Your task to perform on an android device: delete a single message in the gmail app Image 0: 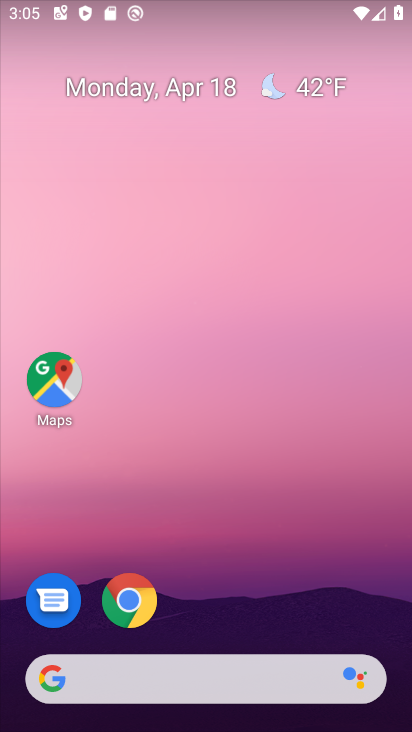
Step 0: drag from (149, 672) to (335, 47)
Your task to perform on an android device: delete a single message in the gmail app Image 1: 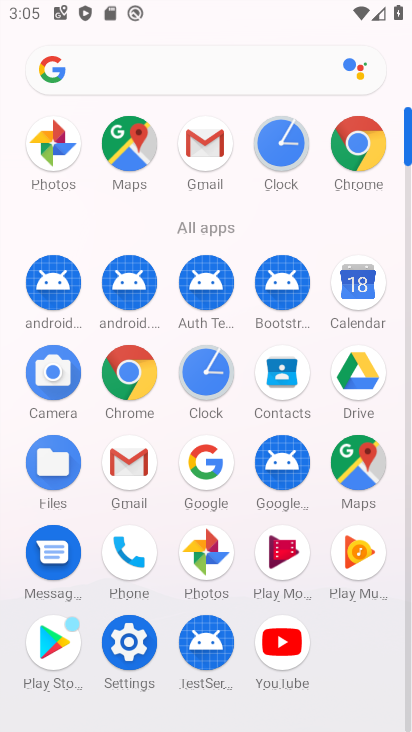
Step 1: click (215, 145)
Your task to perform on an android device: delete a single message in the gmail app Image 2: 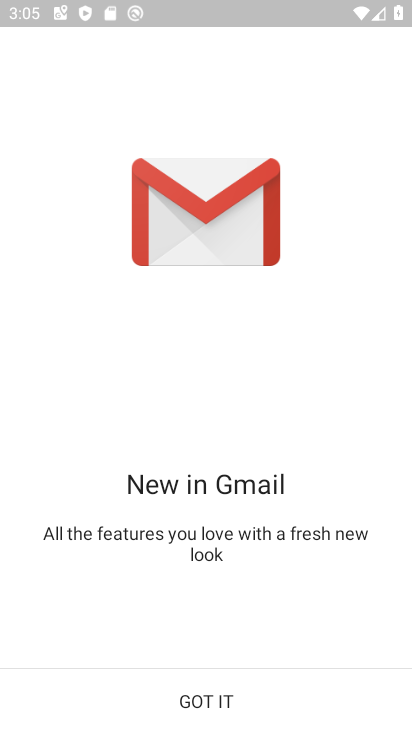
Step 2: click (201, 707)
Your task to perform on an android device: delete a single message in the gmail app Image 3: 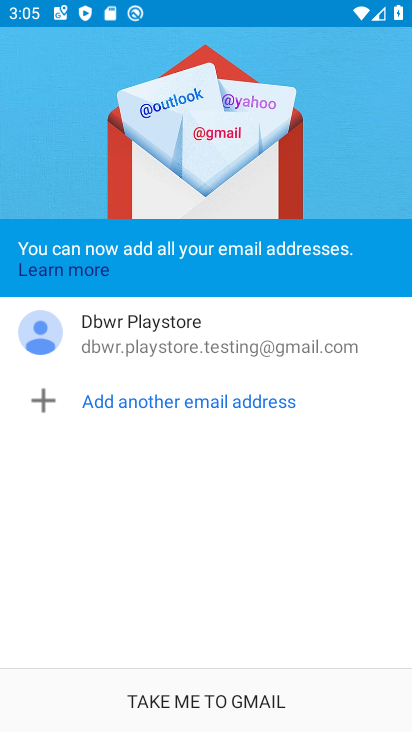
Step 3: click (209, 697)
Your task to perform on an android device: delete a single message in the gmail app Image 4: 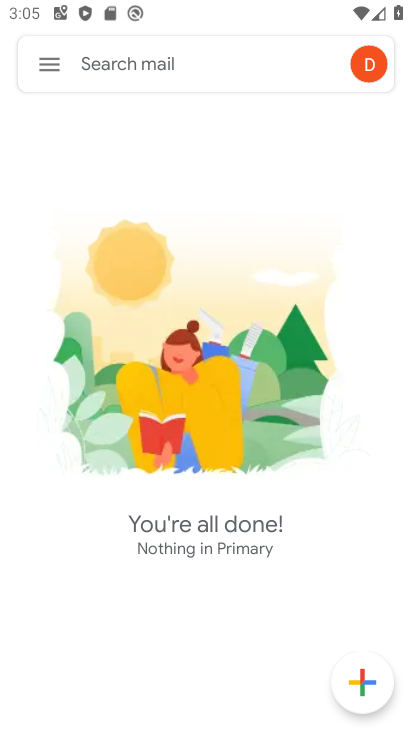
Step 4: task complete